Your task to perform on an android device: turn on airplane mode Image 0: 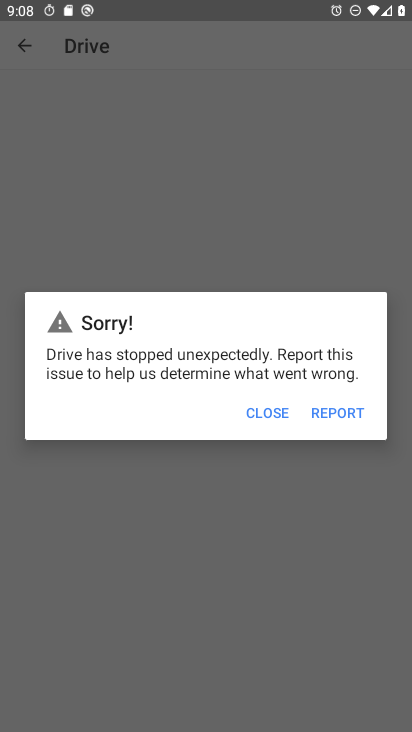
Step 0: press home button
Your task to perform on an android device: turn on airplane mode Image 1: 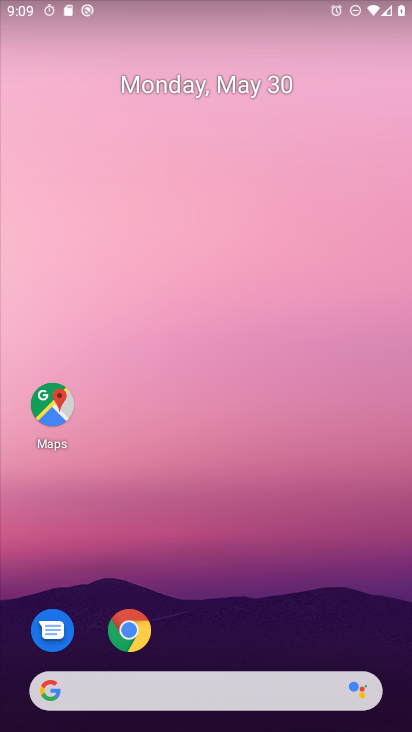
Step 1: drag from (244, 8) to (287, 471)
Your task to perform on an android device: turn on airplane mode Image 2: 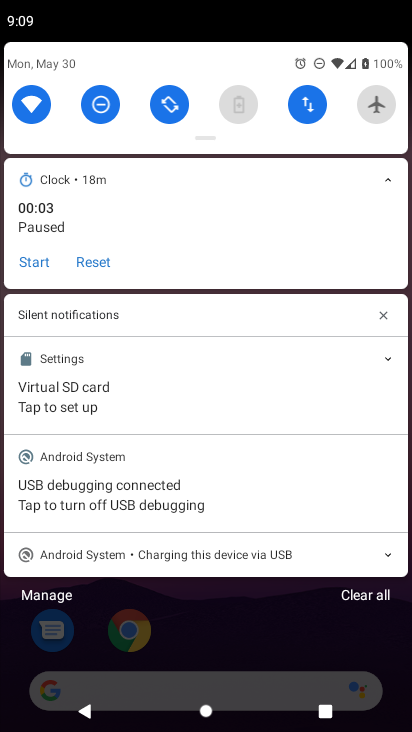
Step 2: click (367, 91)
Your task to perform on an android device: turn on airplane mode Image 3: 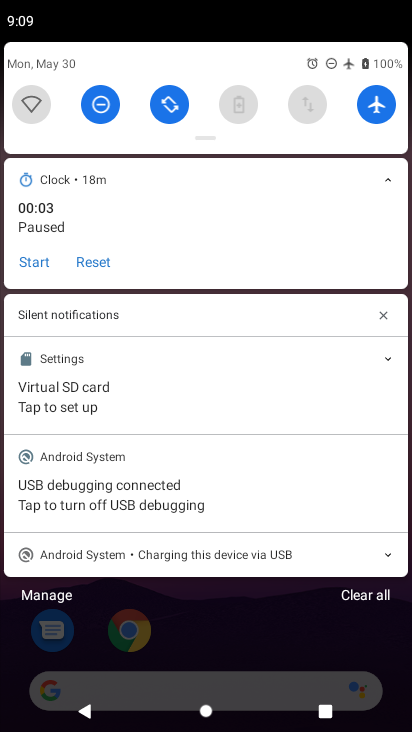
Step 3: task complete